Your task to perform on an android device: Clear the cart on costco. Add "usb-c to usb-a" to the cart on costco Image 0: 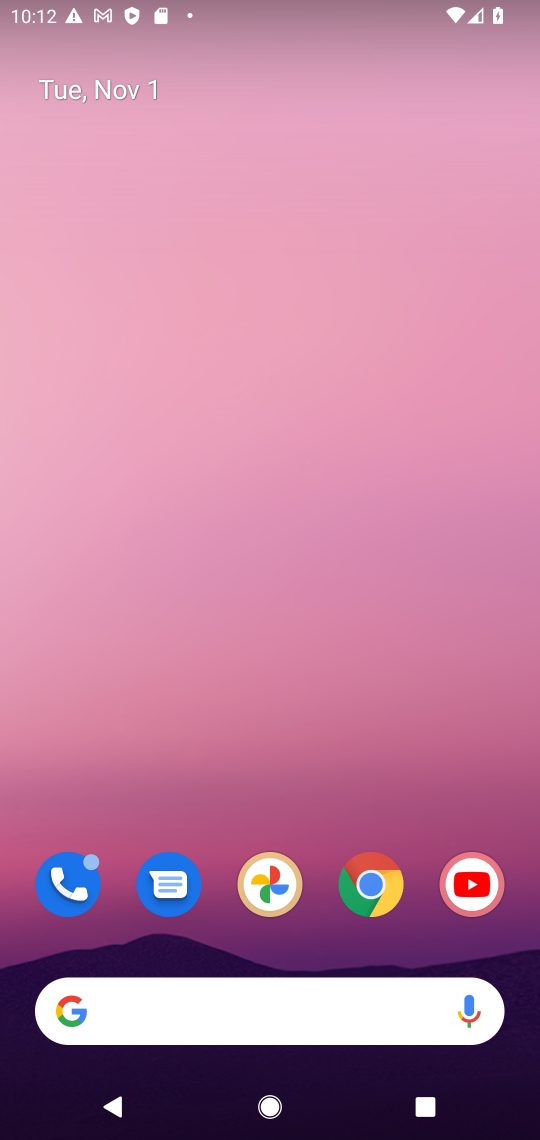
Step 0: click (382, 902)
Your task to perform on an android device: Clear the cart on costco. Add "usb-c to usb-a" to the cart on costco Image 1: 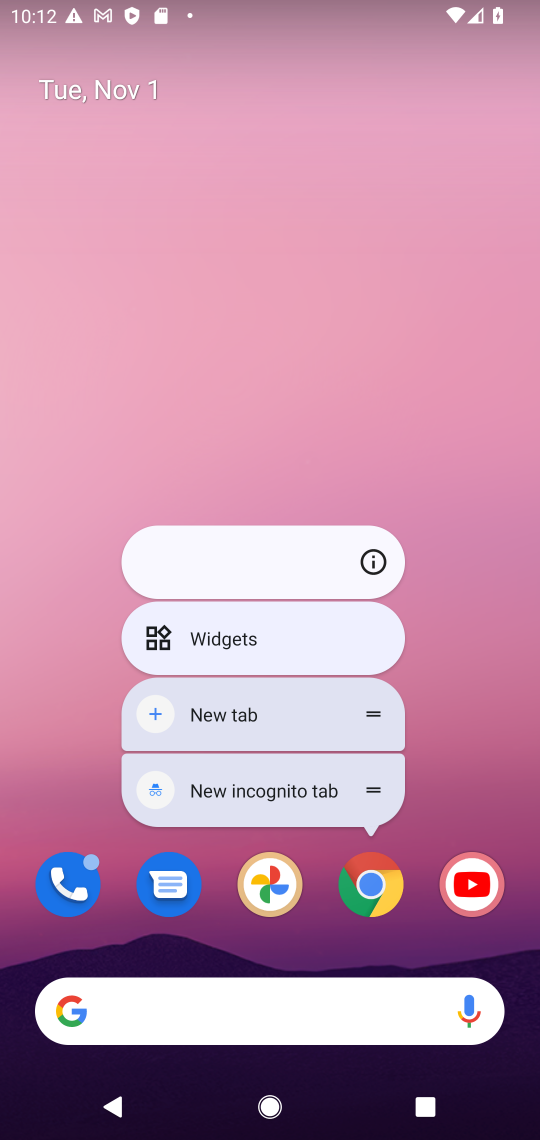
Step 1: click (382, 881)
Your task to perform on an android device: Clear the cart on costco. Add "usb-c to usb-a" to the cart on costco Image 2: 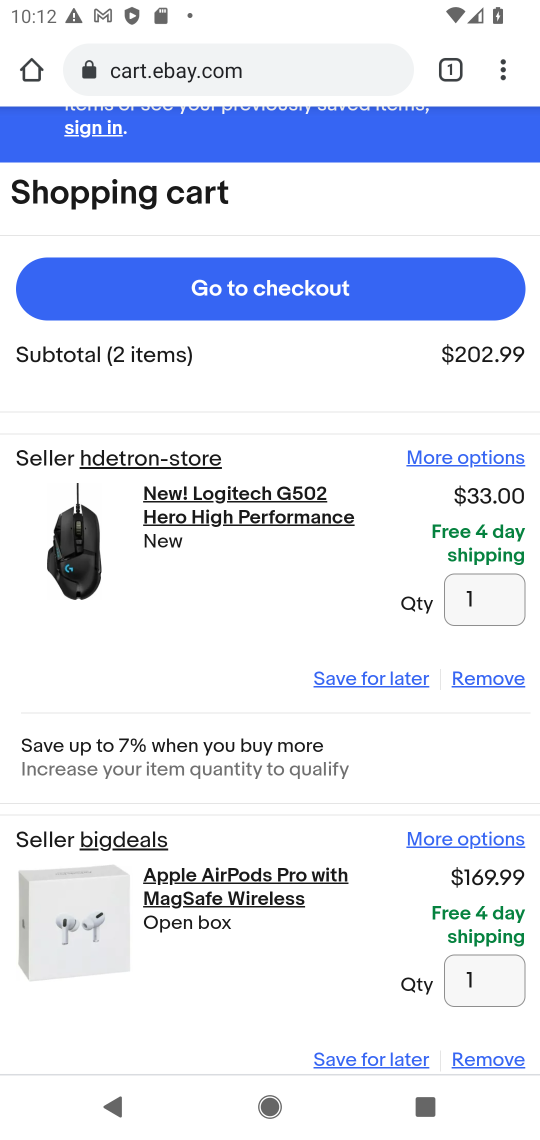
Step 2: click (268, 73)
Your task to perform on an android device: Clear the cart on costco. Add "usb-c to usb-a" to the cart on costco Image 3: 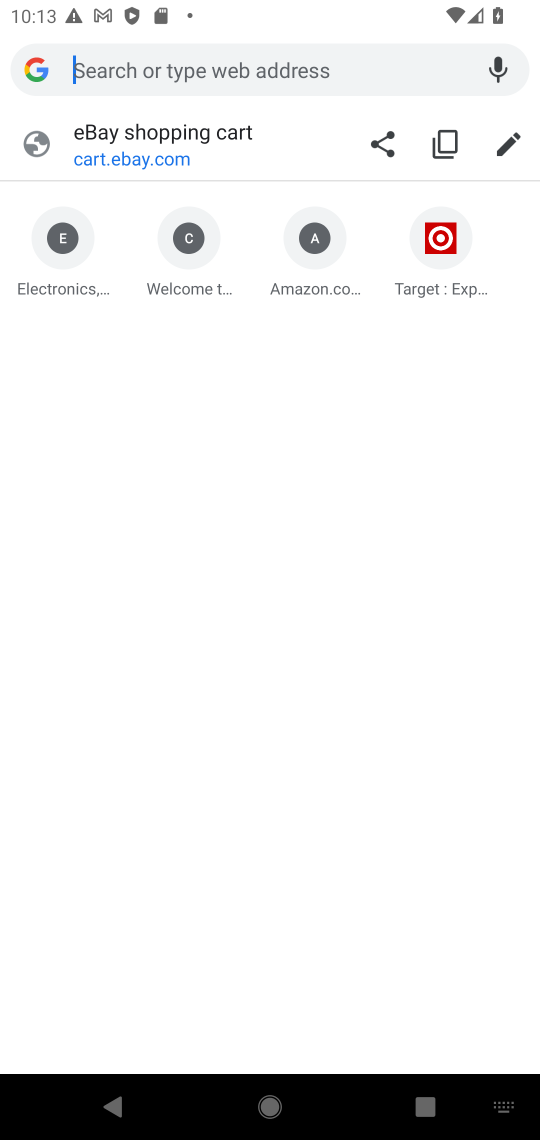
Step 3: type "costco"
Your task to perform on an android device: Clear the cart on costco. Add "usb-c to usb-a" to the cart on costco Image 4: 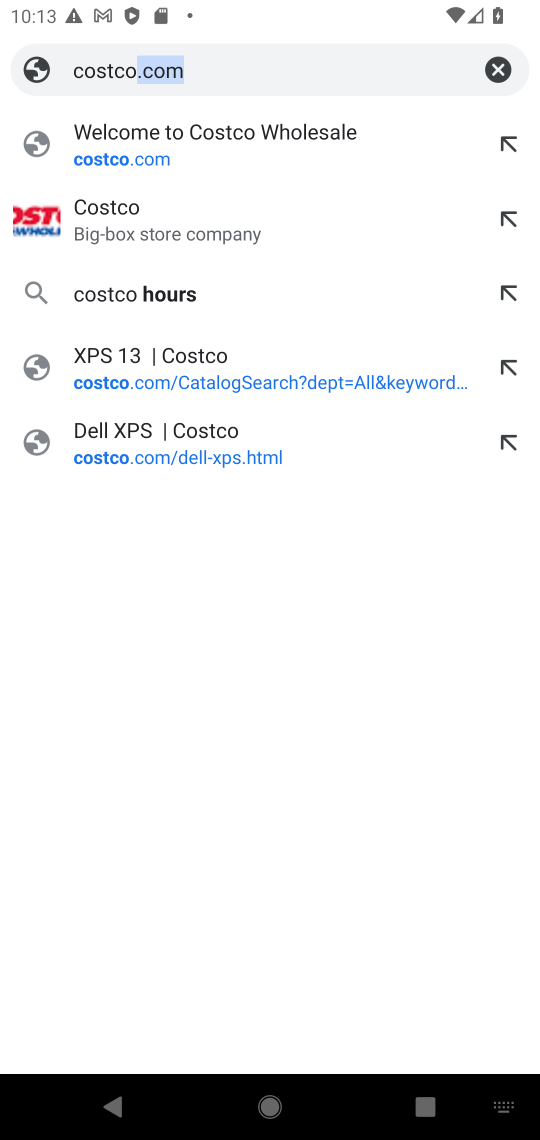
Step 4: press enter
Your task to perform on an android device: Clear the cart on costco. Add "usb-c to usb-a" to the cart on costco Image 5: 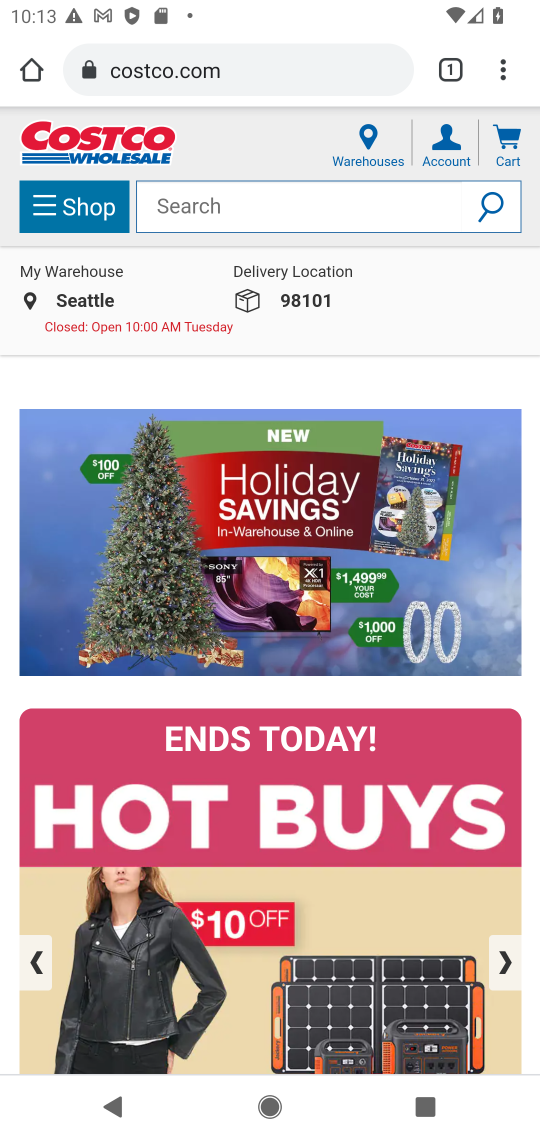
Step 5: click (278, 205)
Your task to perform on an android device: Clear the cart on costco. Add "usb-c to usb-a" to the cart on costco Image 6: 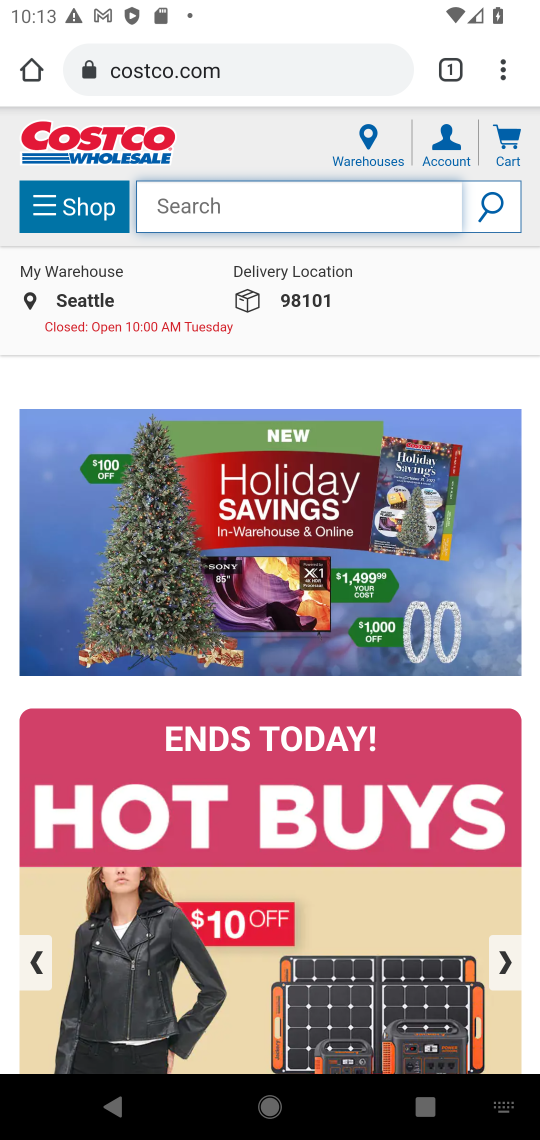
Step 6: type "usb-c to usb-a"
Your task to perform on an android device: Clear the cart on costco. Add "usb-c to usb-a" to the cart on costco Image 7: 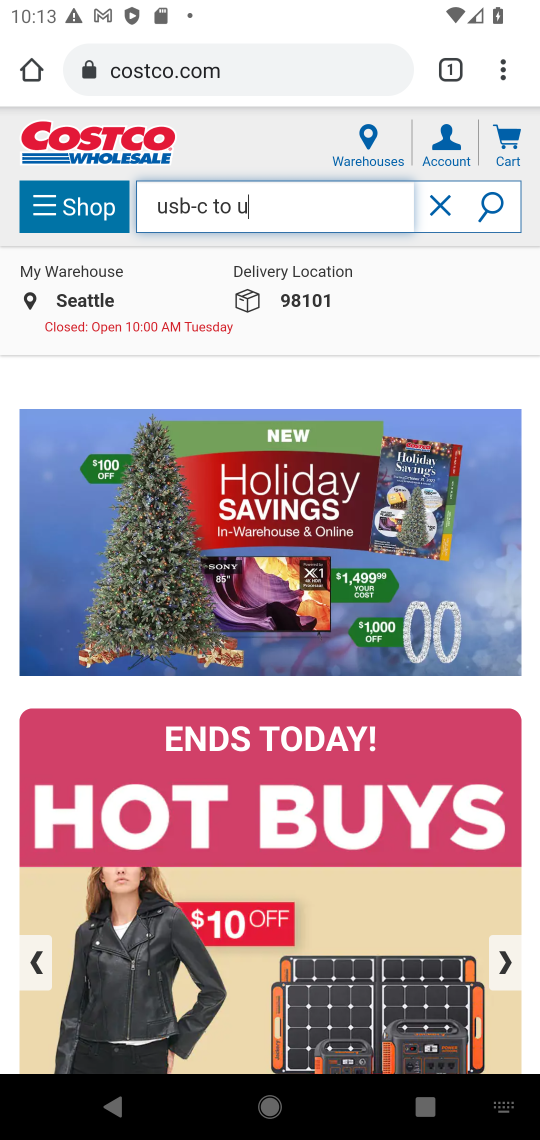
Step 7: type ""
Your task to perform on an android device: Clear the cart on costco. Add "usb-c to usb-a" to the cart on costco Image 8: 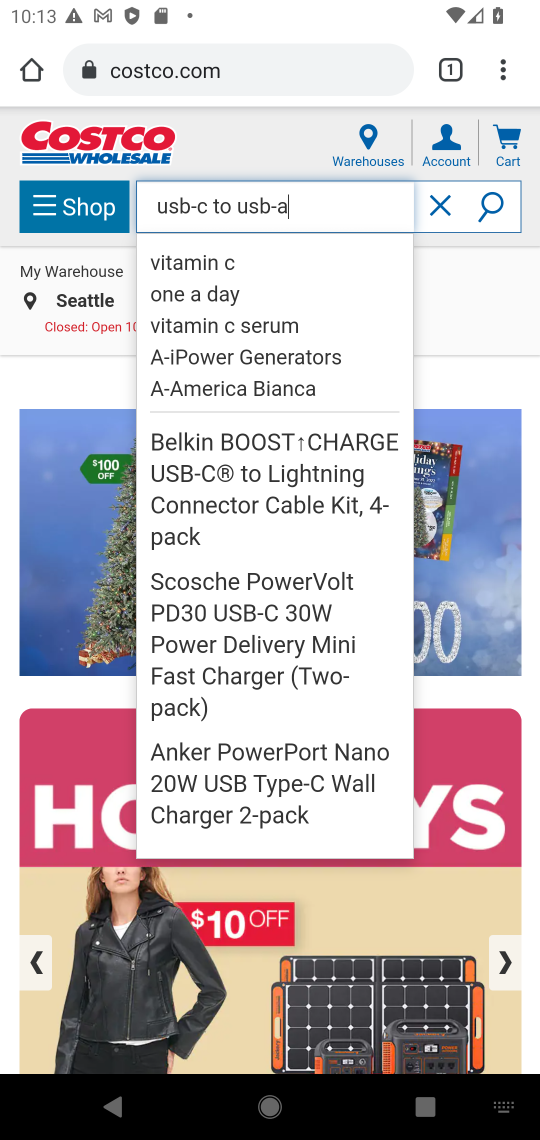
Step 8: press enter
Your task to perform on an android device: Clear the cart on costco. Add "usb-c to usb-a" to the cart on costco Image 9: 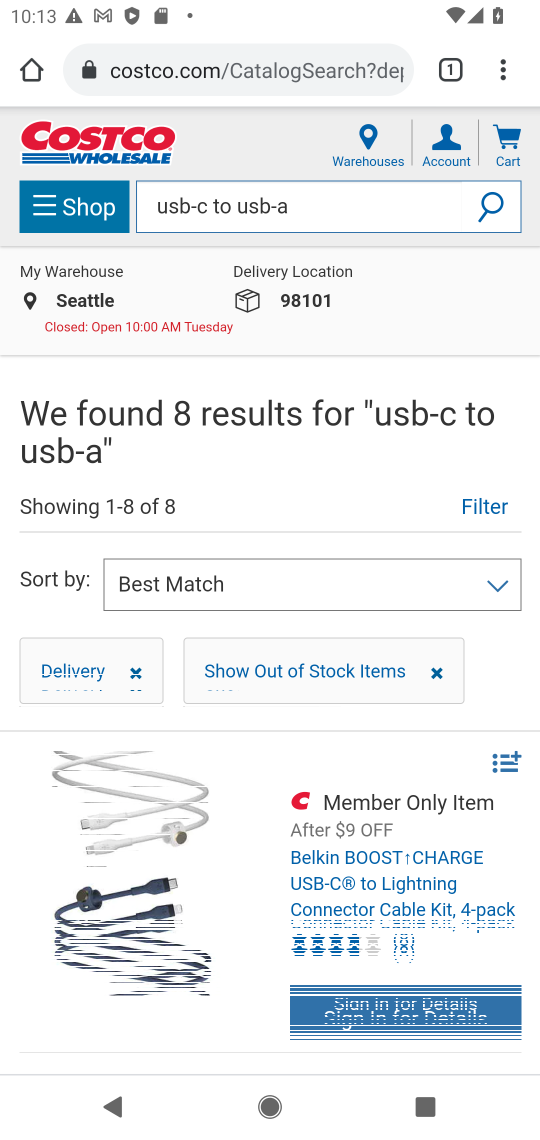
Step 9: drag from (216, 890) to (241, 397)
Your task to perform on an android device: Clear the cart on costco. Add "usb-c to usb-a" to the cart on costco Image 10: 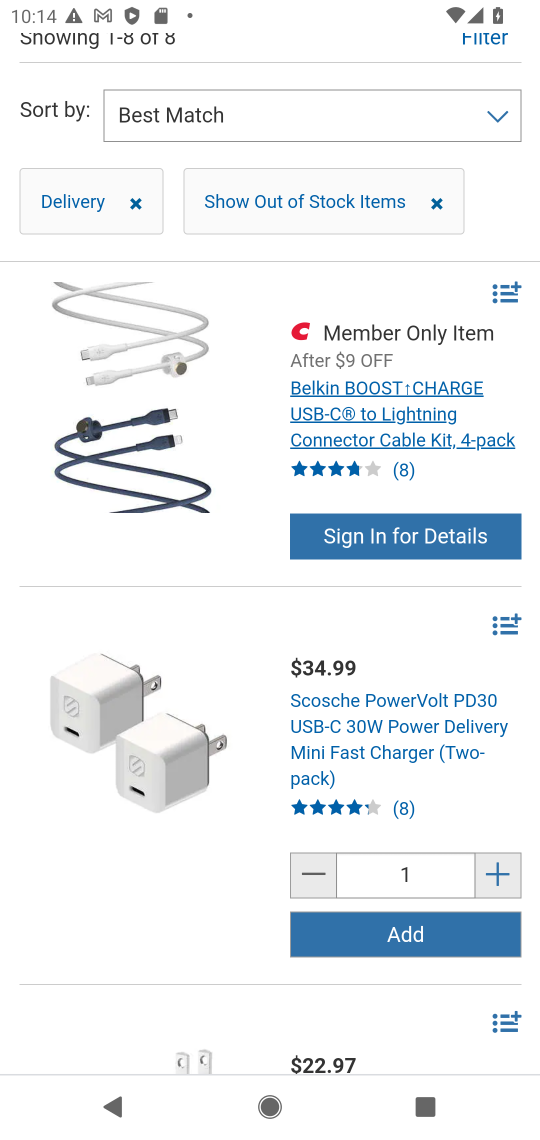
Step 10: drag from (249, 890) to (251, 587)
Your task to perform on an android device: Clear the cart on costco. Add "usb-c to usb-a" to the cart on costco Image 11: 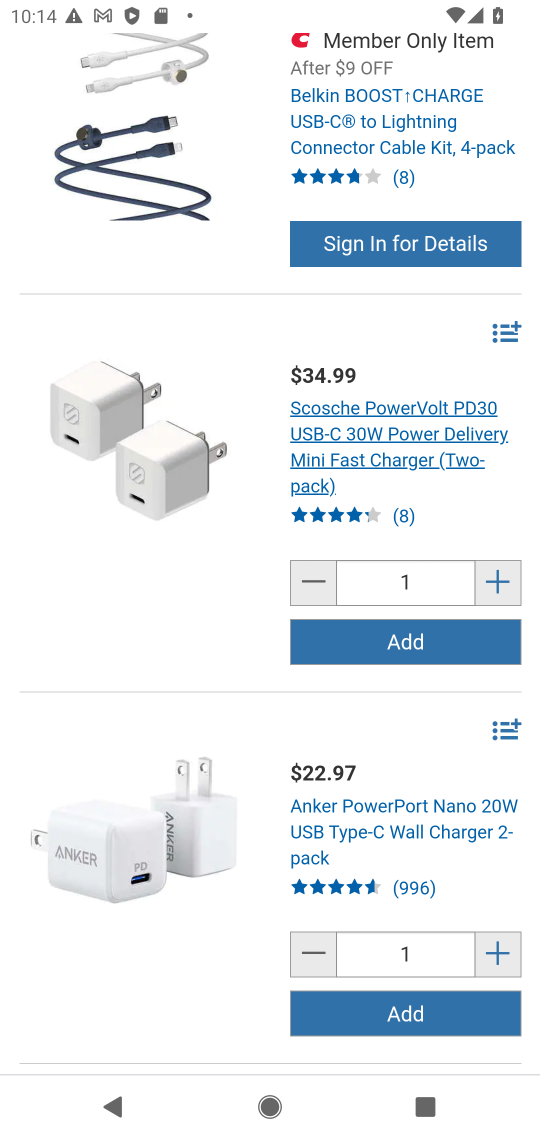
Step 11: drag from (256, 592) to (297, 910)
Your task to perform on an android device: Clear the cart on costco. Add "usb-c to usb-a" to the cart on costco Image 12: 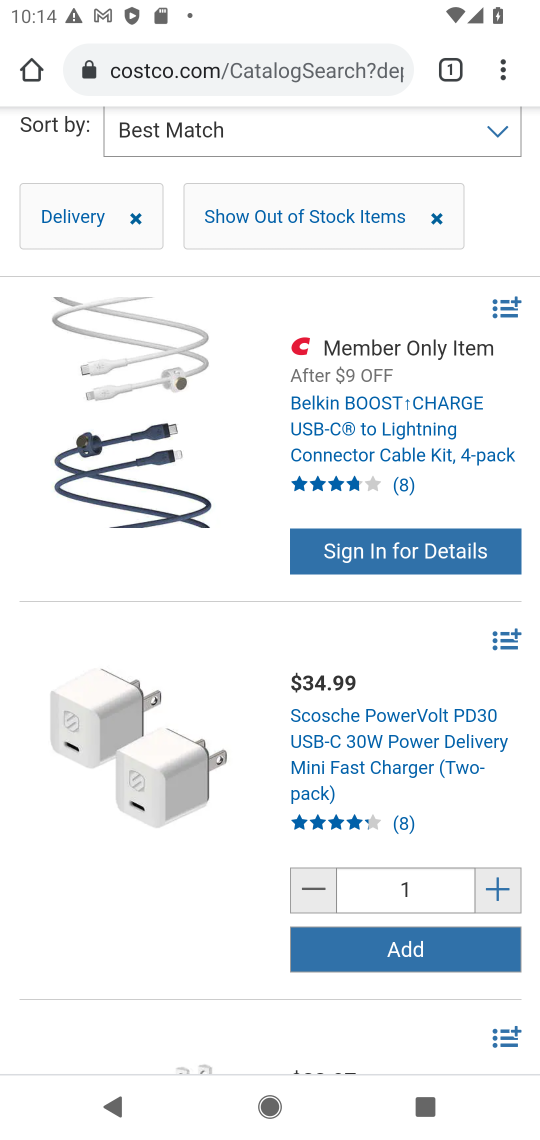
Step 12: drag from (182, 817) to (189, 279)
Your task to perform on an android device: Clear the cart on costco. Add "usb-c to usb-a" to the cart on costco Image 13: 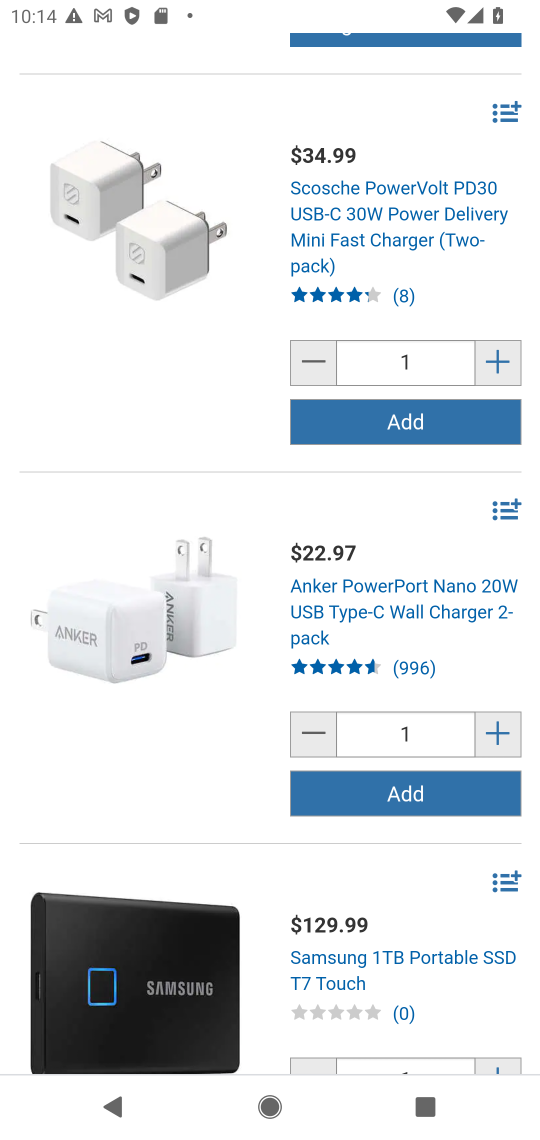
Step 13: drag from (158, 403) to (236, 910)
Your task to perform on an android device: Clear the cart on costco. Add "usb-c to usb-a" to the cart on costco Image 14: 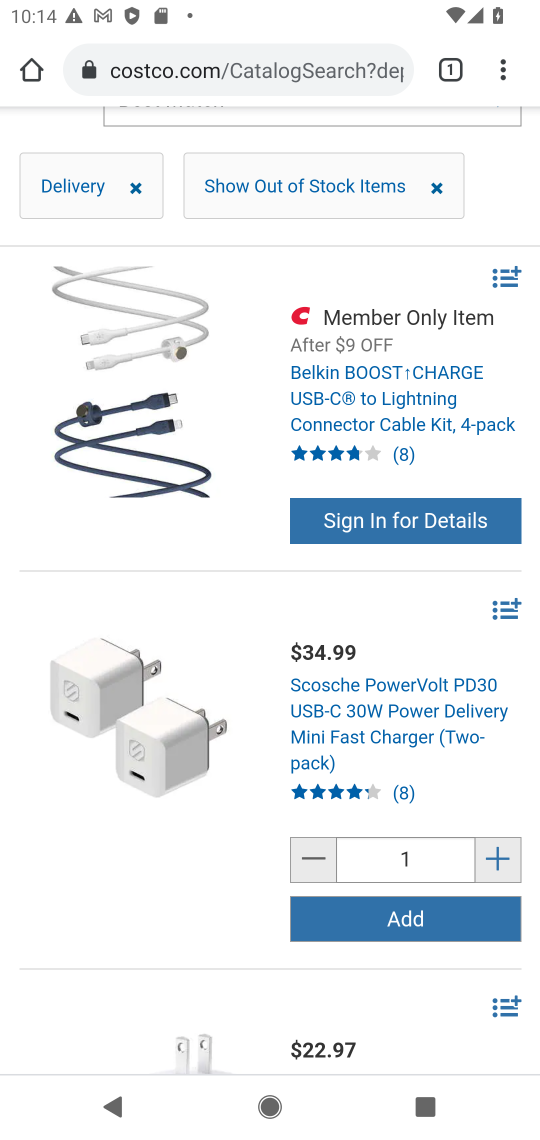
Step 14: click (330, 399)
Your task to perform on an android device: Clear the cart on costco. Add "usb-c to usb-a" to the cart on costco Image 15: 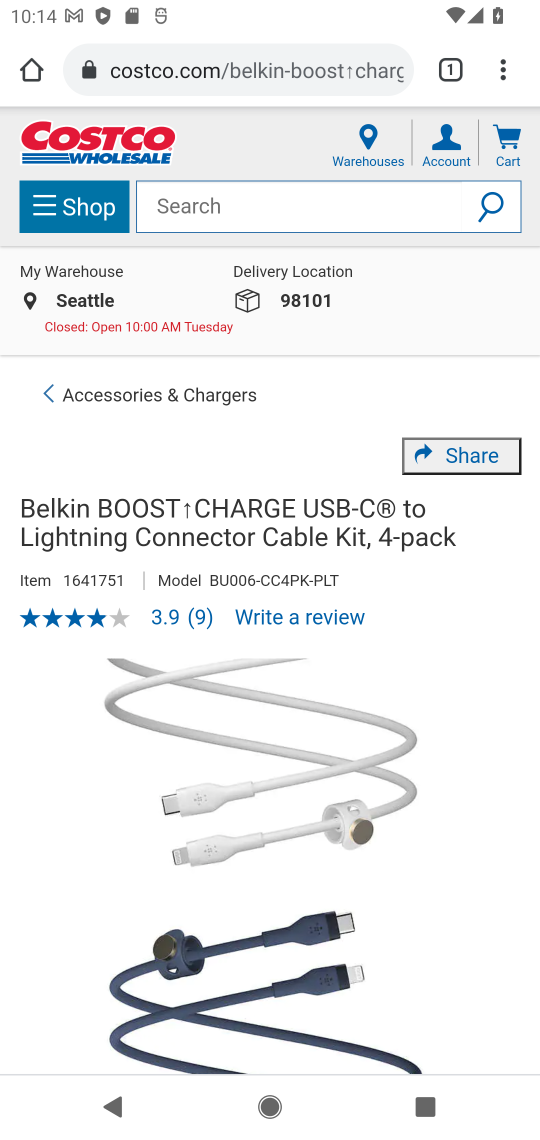
Step 15: drag from (336, 903) to (302, 60)
Your task to perform on an android device: Clear the cart on costco. Add "usb-c to usb-a" to the cart on costco Image 16: 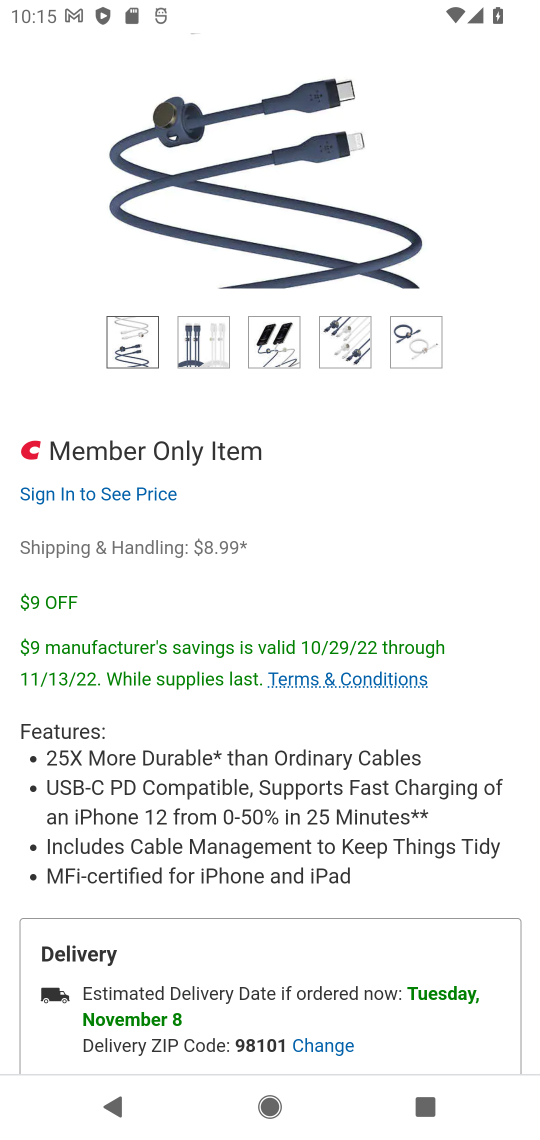
Step 16: drag from (322, 862) to (308, 1135)
Your task to perform on an android device: Clear the cart on costco. Add "usb-c to usb-a" to the cart on costco Image 17: 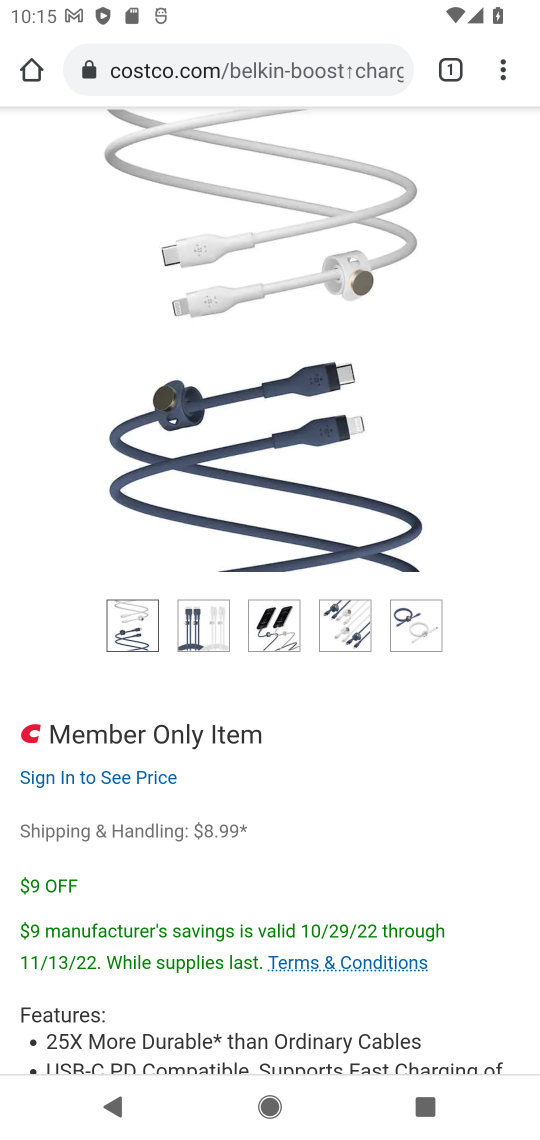
Step 17: drag from (298, 354) to (334, 911)
Your task to perform on an android device: Clear the cart on costco. Add "usb-c to usb-a" to the cart on costco Image 18: 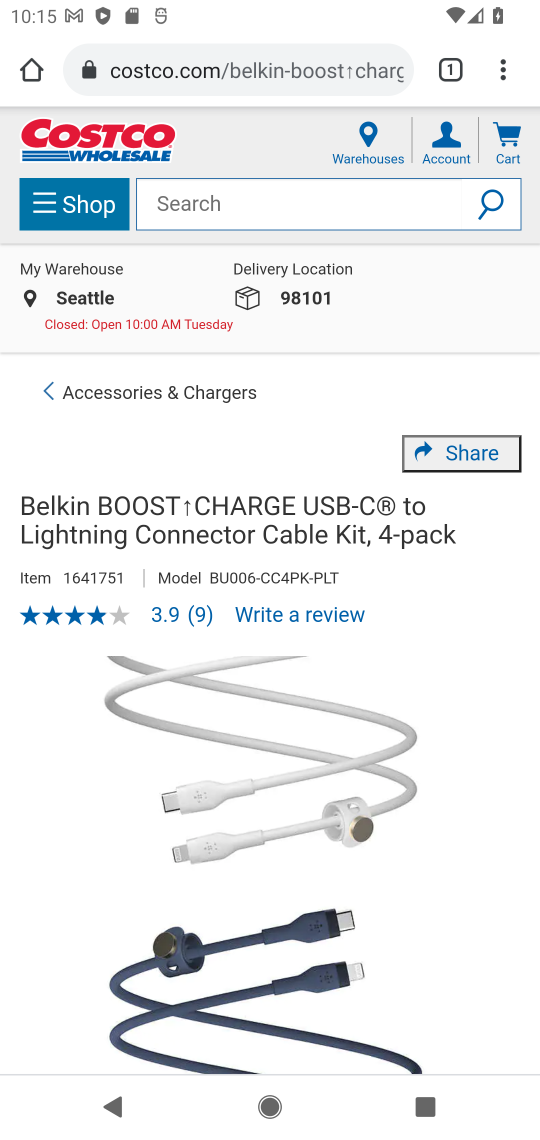
Step 18: drag from (379, 940) to (358, 152)
Your task to perform on an android device: Clear the cart on costco. Add "usb-c to usb-a" to the cart on costco Image 19: 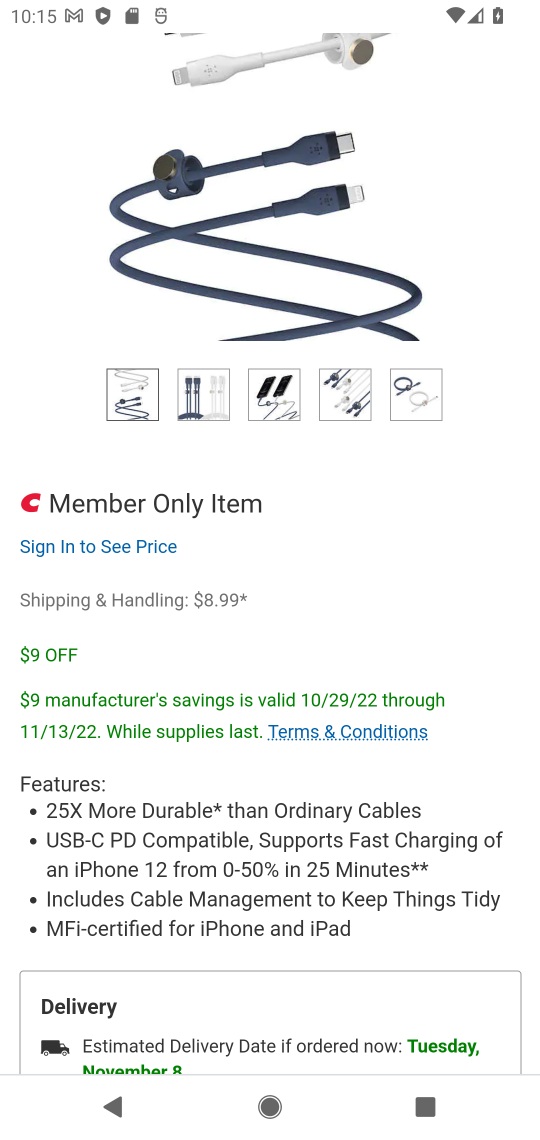
Step 19: drag from (390, 857) to (407, 274)
Your task to perform on an android device: Clear the cart on costco. Add "usb-c to usb-a" to the cart on costco Image 20: 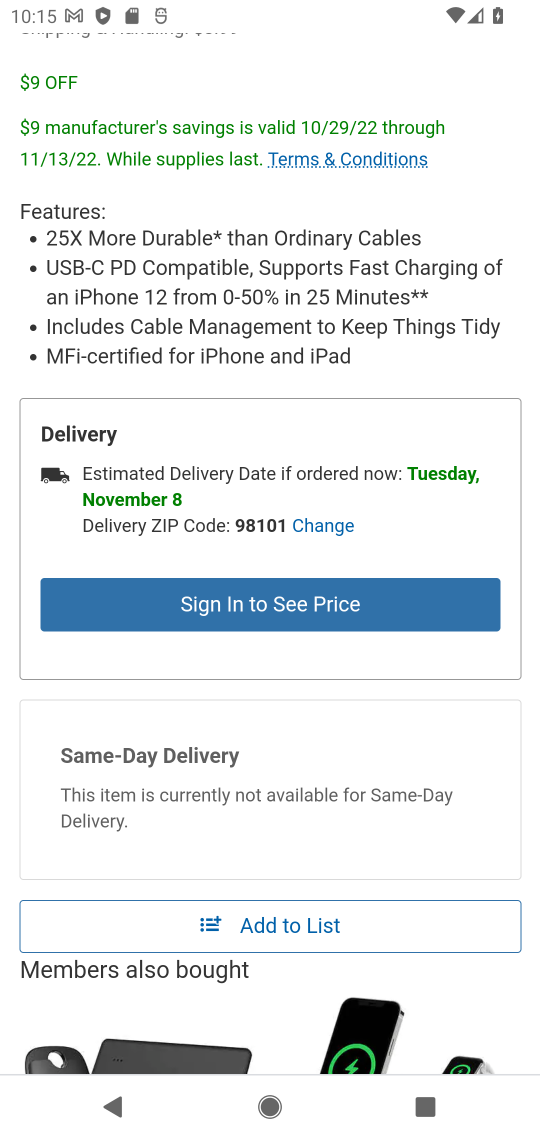
Step 20: click (365, 616)
Your task to perform on an android device: Clear the cart on costco. Add "usb-c to usb-a" to the cart on costco Image 21: 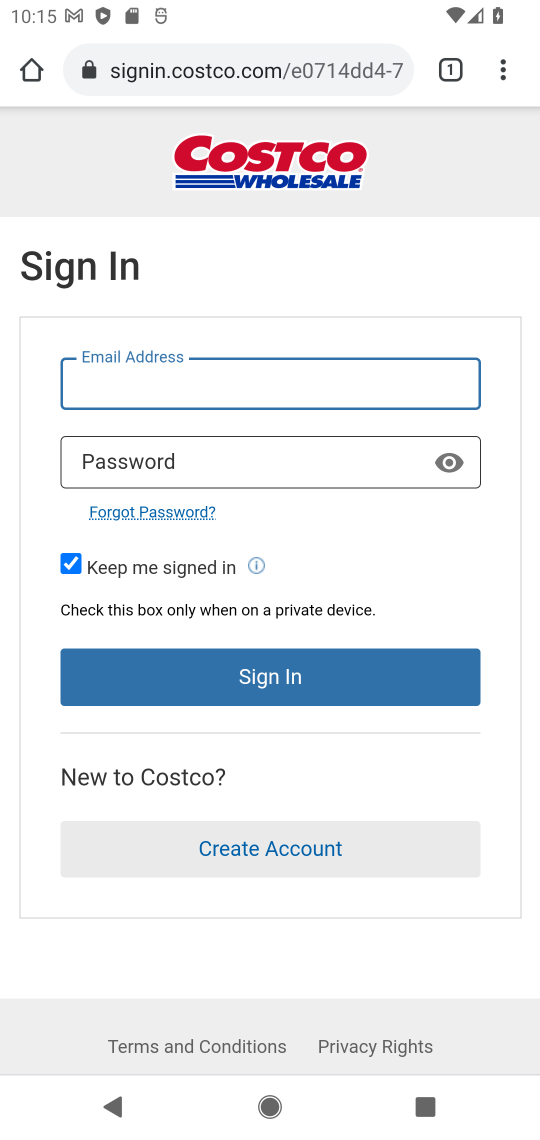
Step 21: task complete